Your task to perform on an android device: Show me recent news Image 0: 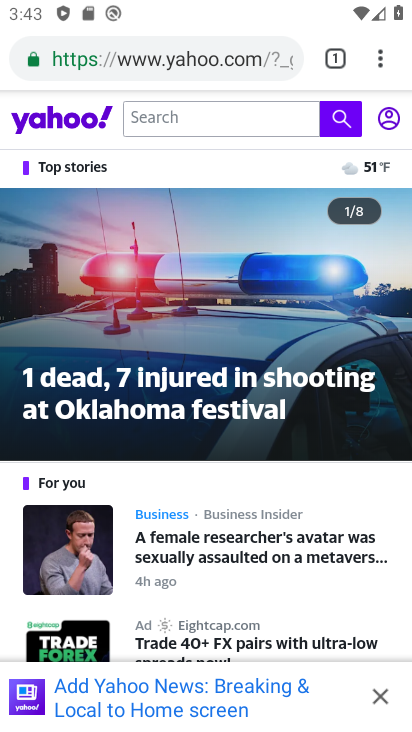
Step 0: click (140, 66)
Your task to perform on an android device: Show me recent news Image 1: 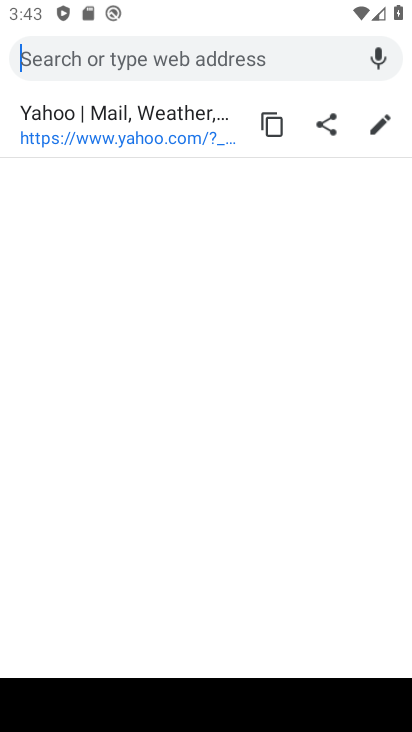
Step 1: type "recent news"
Your task to perform on an android device: Show me recent news Image 2: 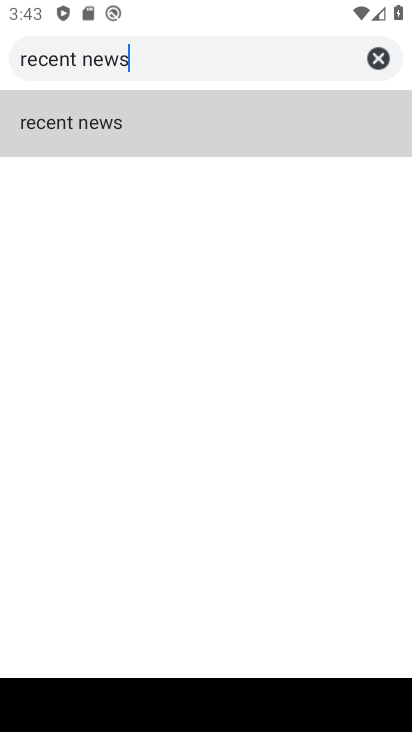
Step 2: click (119, 116)
Your task to perform on an android device: Show me recent news Image 3: 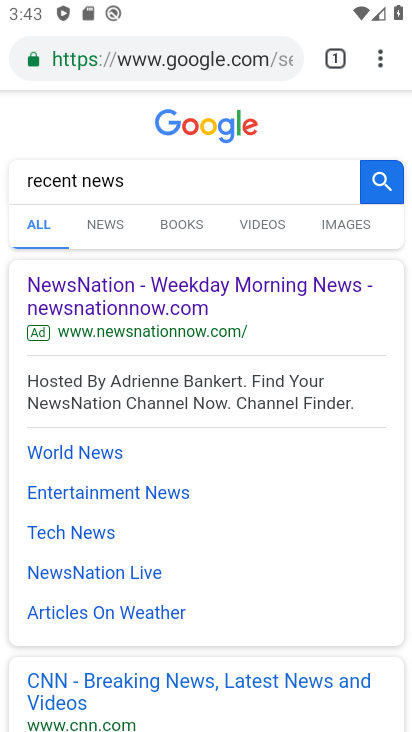
Step 3: click (185, 684)
Your task to perform on an android device: Show me recent news Image 4: 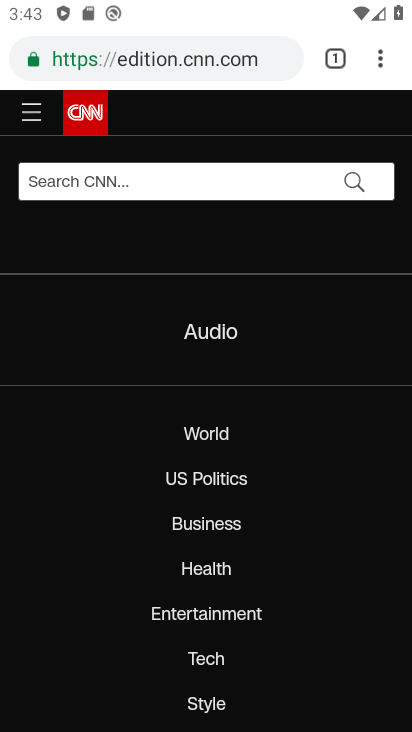
Step 4: task complete